Your task to perform on an android device: Search for Italian restaurants on Maps Image 0: 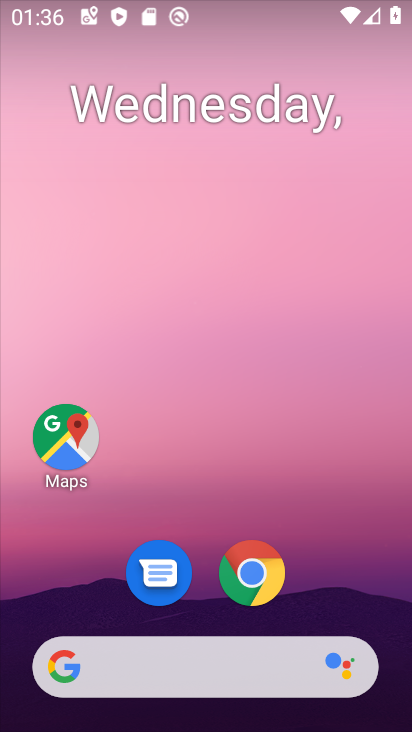
Step 0: click (64, 441)
Your task to perform on an android device: Search for Italian restaurants on Maps Image 1: 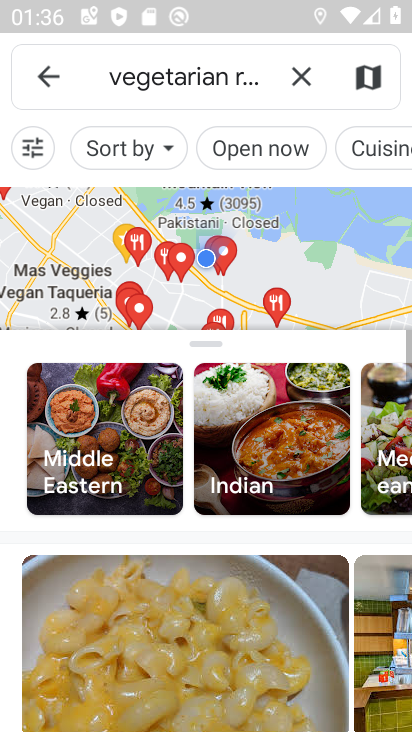
Step 1: click (299, 75)
Your task to perform on an android device: Search for Italian restaurants on Maps Image 2: 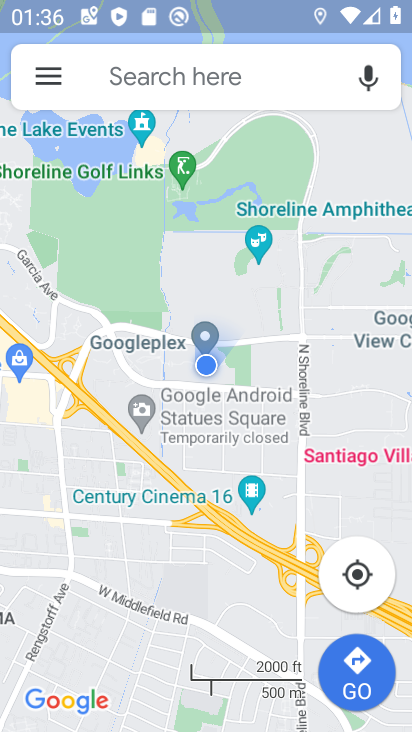
Step 2: click (202, 72)
Your task to perform on an android device: Search for Italian restaurants on Maps Image 3: 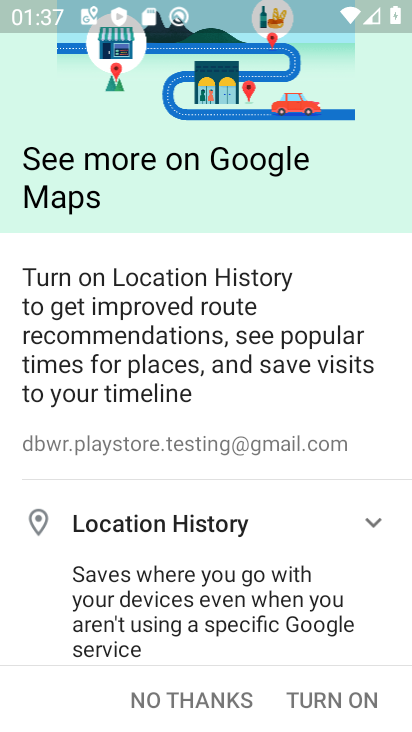
Step 3: click (233, 700)
Your task to perform on an android device: Search for Italian restaurants on Maps Image 4: 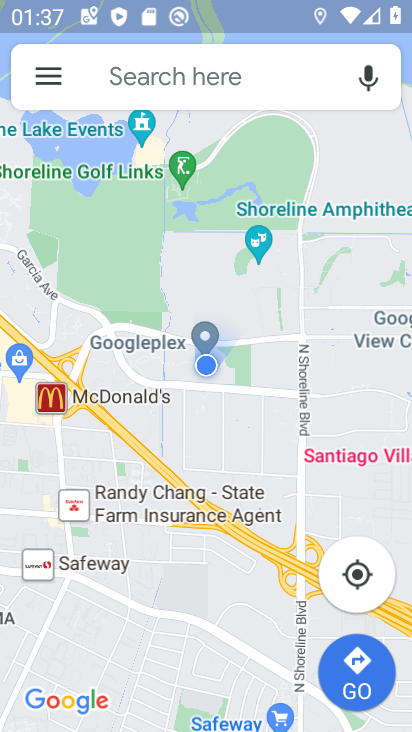
Step 4: click (252, 81)
Your task to perform on an android device: Search for Italian restaurants on Maps Image 5: 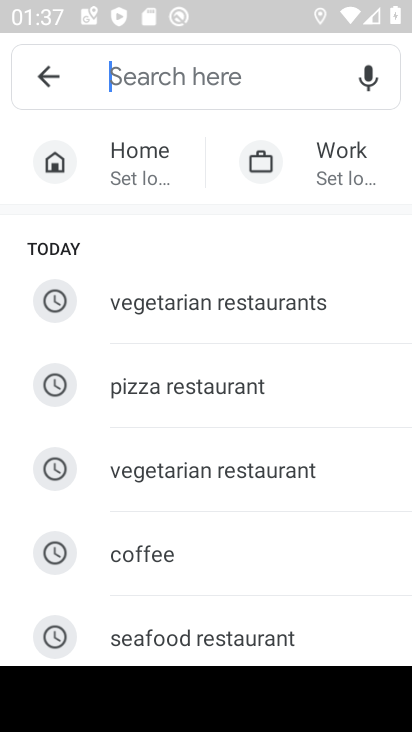
Step 5: type "Italian restaurants"
Your task to perform on an android device: Search for Italian restaurants on Maps Image 6: 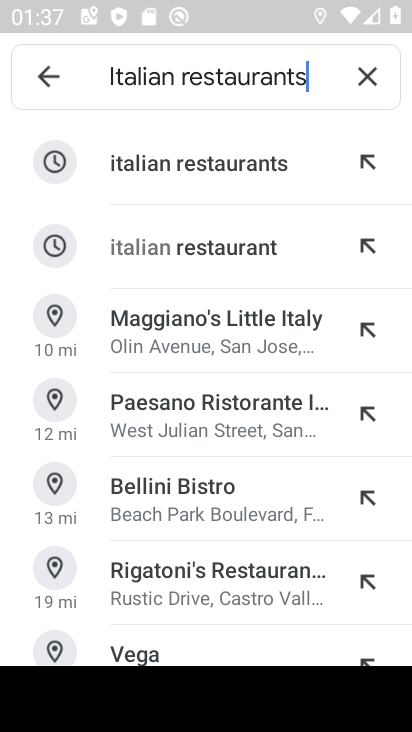
Step 6: click (218, 171)
Your task to perform on an android device: Search for Italian restaurants on Maps Image 7: 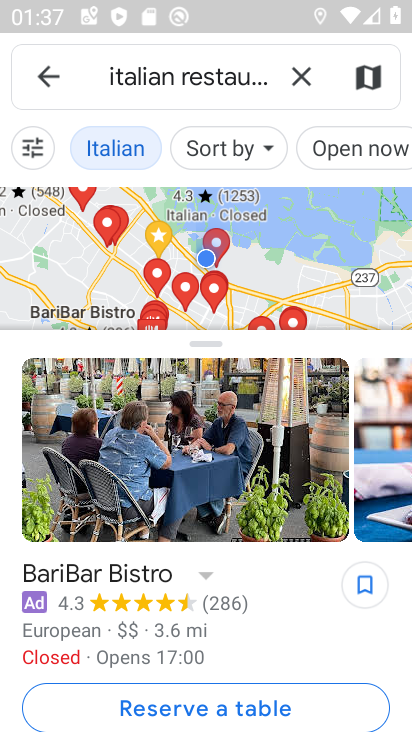
Step 7: task complete